Your task to perform on an android device: What's the weather today? Image 0: 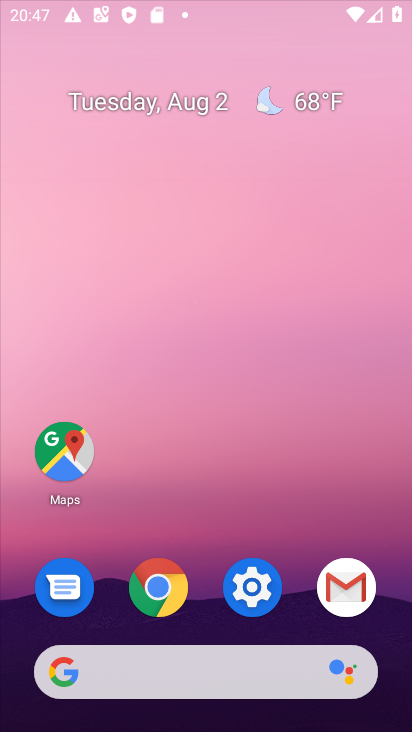
Step 0: click (274, 587)
Your task to perform on an android device: What's the weather today? Image 1: 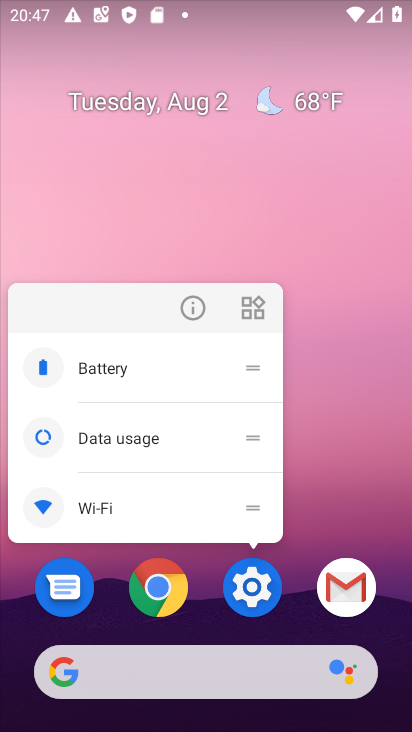
Step 1: press home button
Your task to perform on an android device: What's the weather today? Image 2: 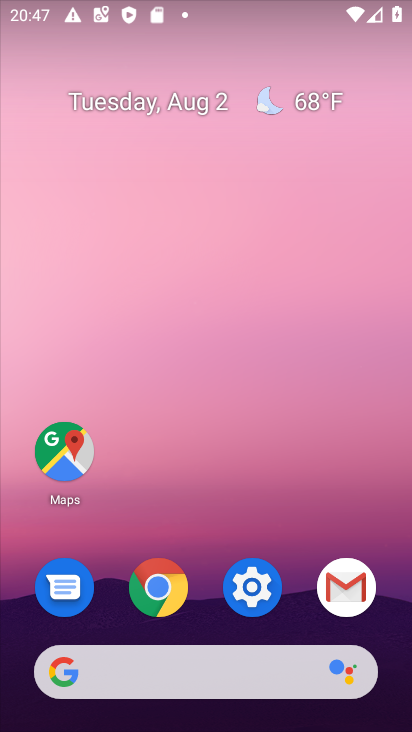
Step 2: click (173, 580)
Your task to perform on an android device: What's the weather today? Image 3: 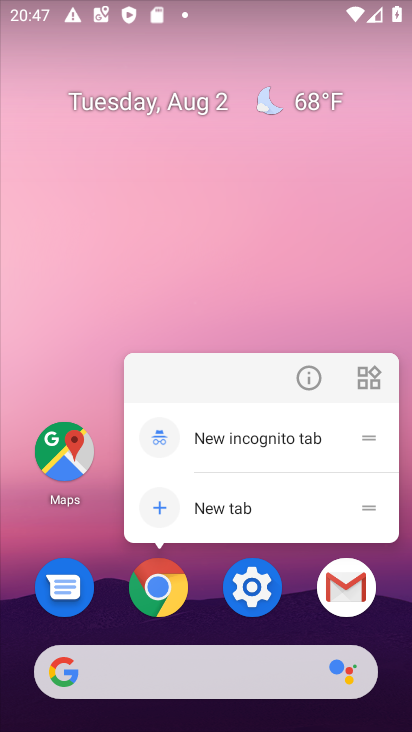
Step 3: click (171, 659)
Your task to perform on an android device: What's the weather today? Image 4: 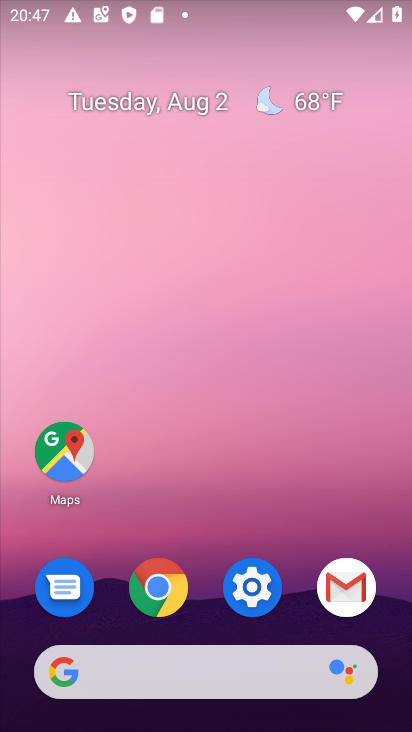
Step 4: click (165, 669)
Your task to perform on an android device: What's the weather today? Image 5: 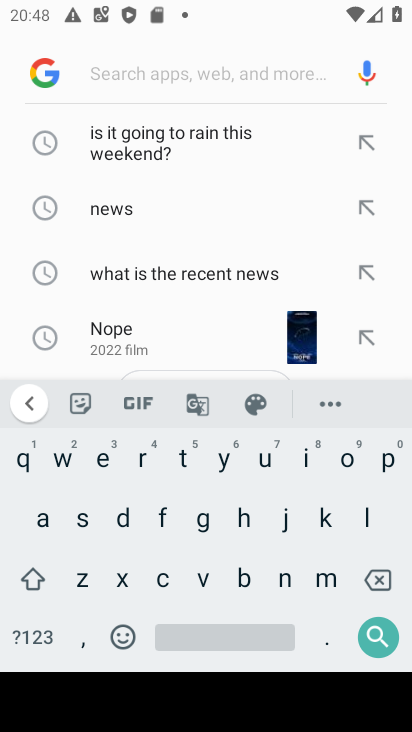
Step 5: click (67, 458)
Your task to perform on an android device: What's the weather today? Image 6: 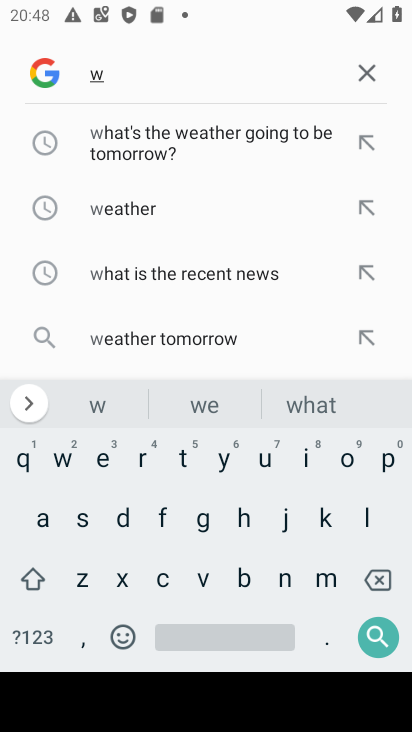
Step 6: click (141, 216)
Your task to perform on an android device: What's the weather today? Image 7: 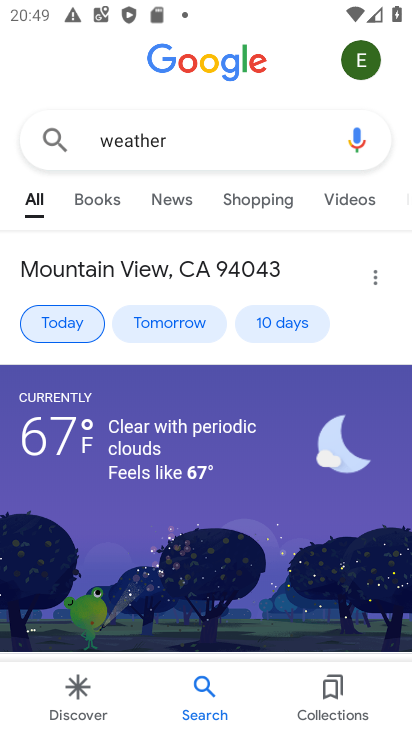
Step 7: task complete